Your task to perform on an android device: toggle notification dots Image 0: 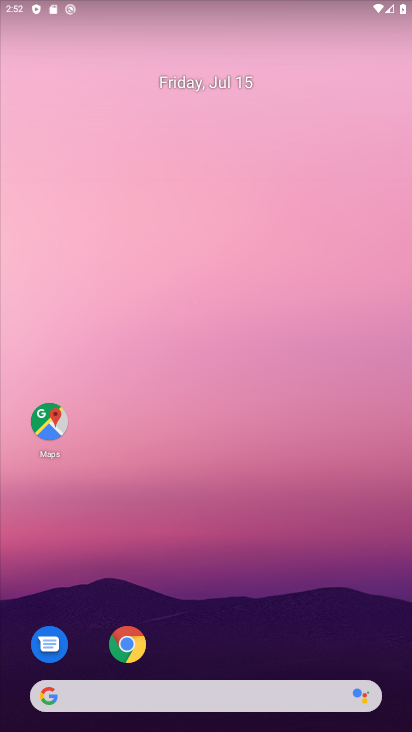
Step 0: drag from (241, 640) to (275, 80)
Your task to perform on an android device: toggle notification dots Image 1: 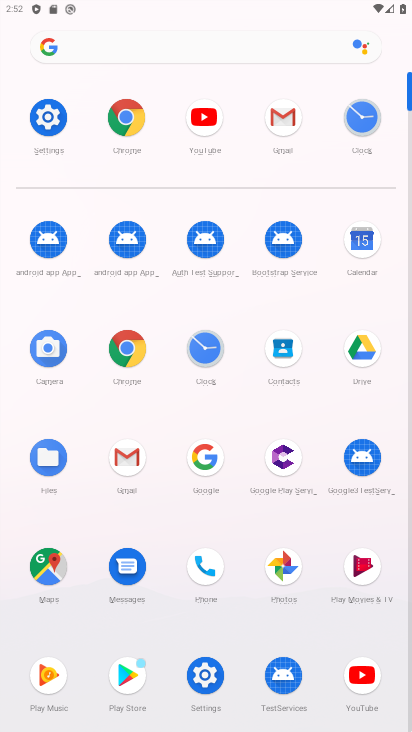
Step 1: click (55, 112)
Your task to perform on an android device: toggle notification dots Image 2: 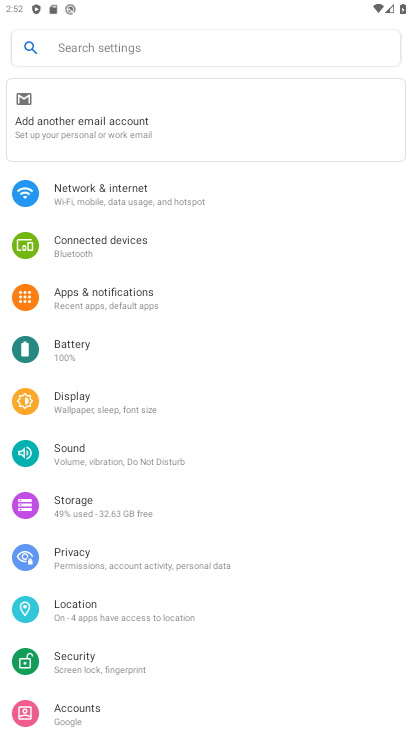
Step 2: click (141, 301)
Your task to perform on an android device: toggle notification dots Image 3: 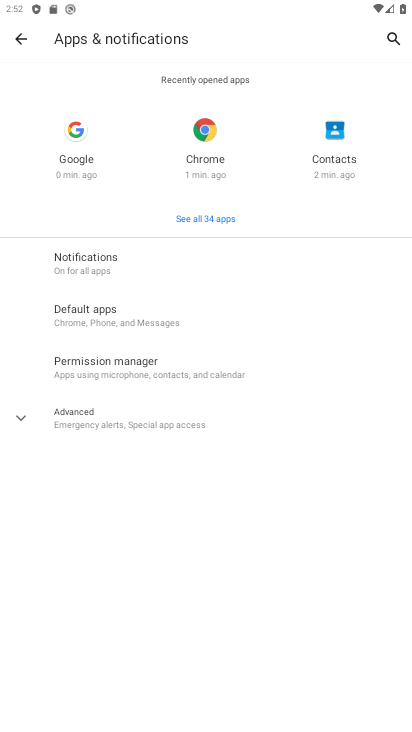
Step 3: click (110, 258)
Your task to perform on an android device: toggle notification dots Image 4: 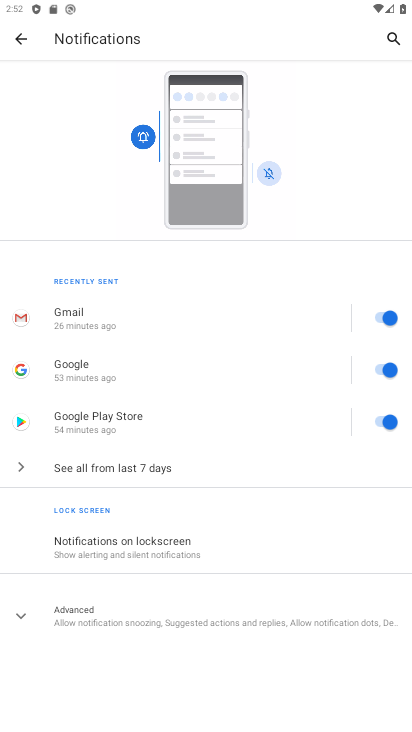
Step 4: click (156, 613)
Your task to perform on an android device: toggle notification dots Image 5: 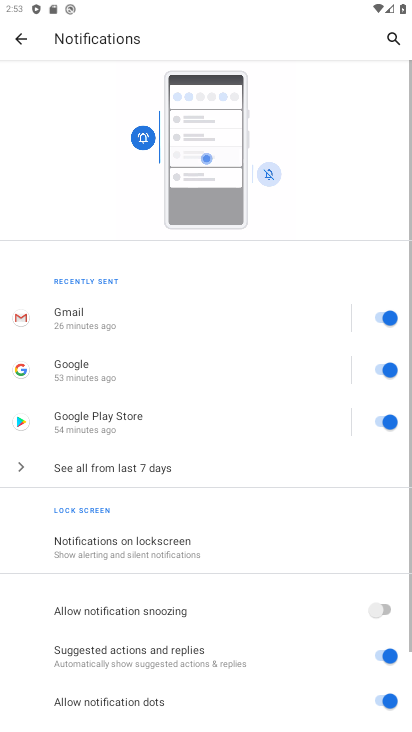
Step 5: drag from (171, 658) to (233, 294)
Your task to perform on an android device: toggle notification dots Image 6: 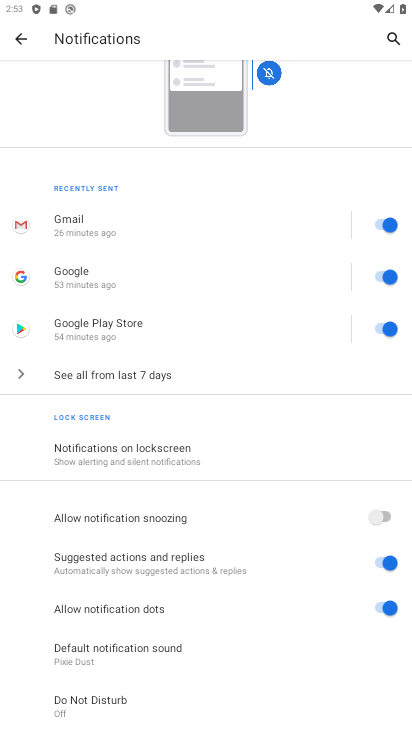
Step 6: click (384, 604)
Your task to perform on an android device: toggle notification dots Image 7: 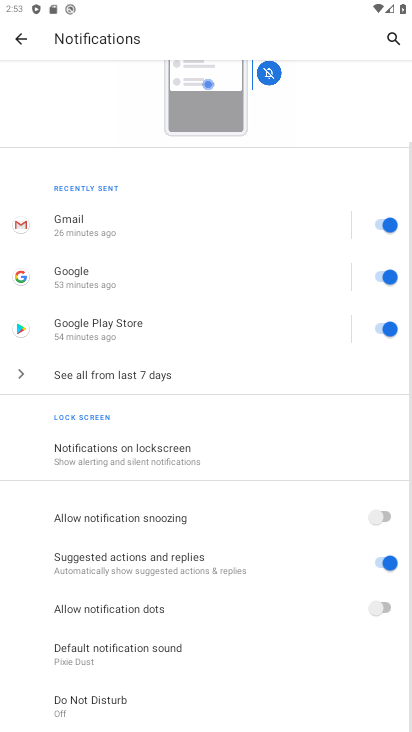
Step 7: task complete